Your task to perform on an android device: turn off wifi Image 0: 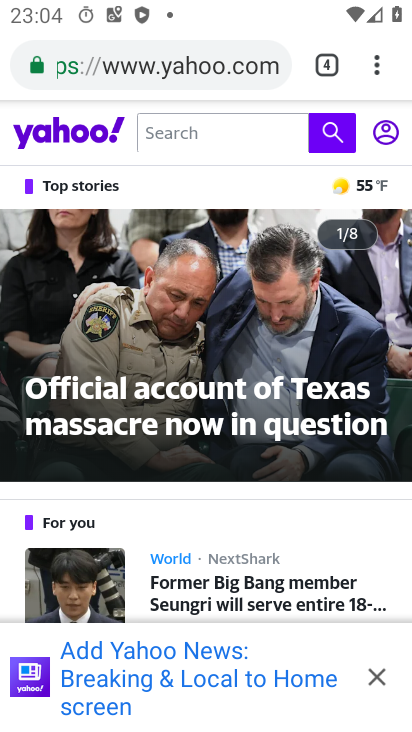
Step 0: press home button
Your task to perform on an android device: turn off wifi Image 1: 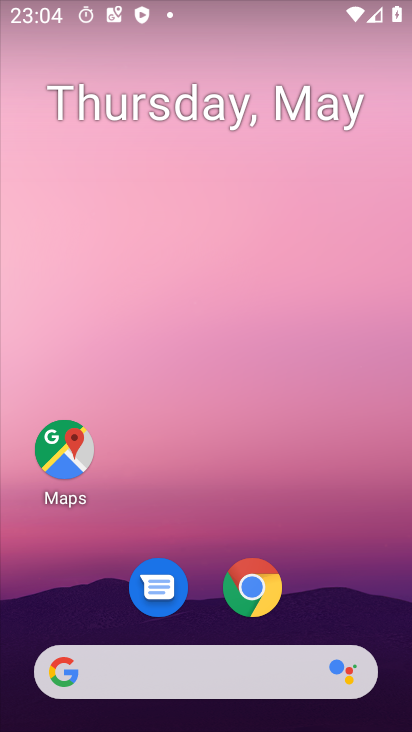
Step 1: drag from (338, 627) to (279, 17)
Your task to perform on an android device: turn off wifi Image 2: 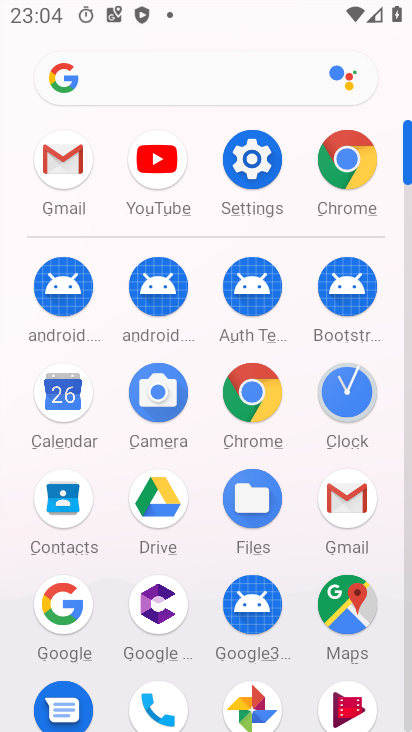
Step 2: click (244, 166)
Your task to perform on an android device: turn off wifi Image 3: 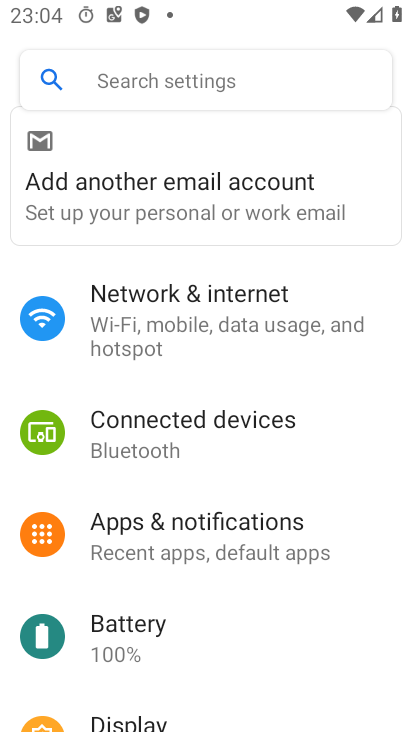
Step 3: click (134, 316)
Your task to perform on an android device: turn off wifi Image 4: 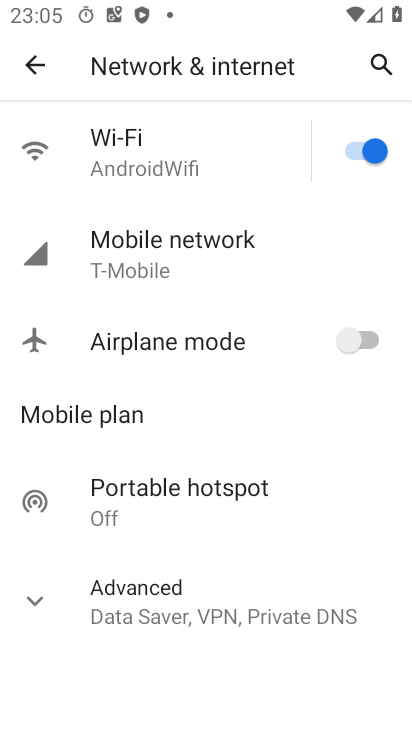
Step 4: click (368, 153)
Your task to perform on an android device: turn off wifi Image 5: 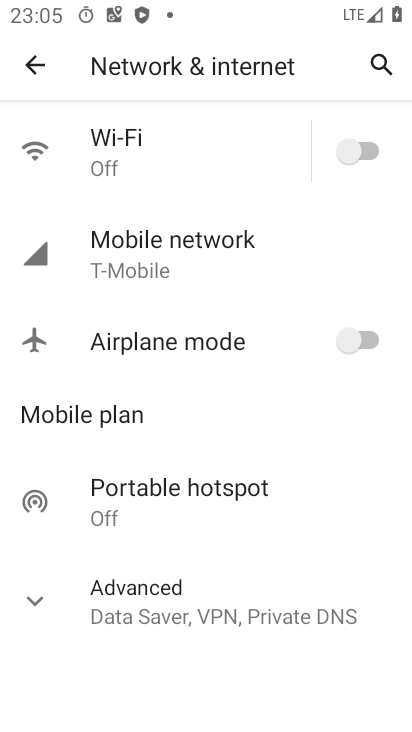
Step 5: task complete